Your task to perform on an android device: read, delete, or share a saved page in the chrome app Image 0: 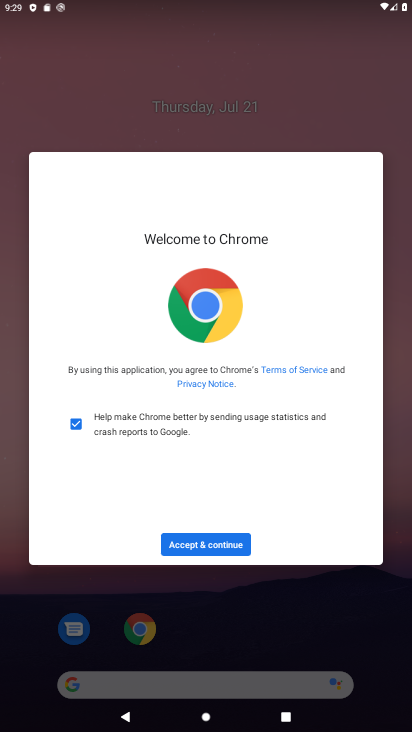
Step 0: click (231, 538)
Your task to perform on an android device: read, delete, or share a saved page in the chrome app Image 1: 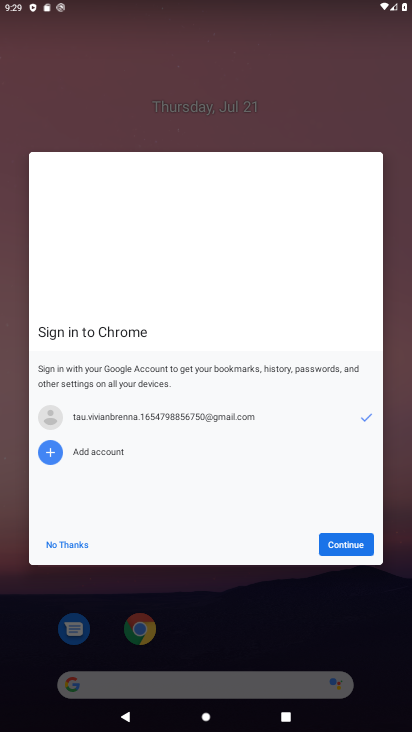
Step 1: click (350, 541)
Your task to perform on an android device: read, delete, or share a saved page in the chrome app Image 2: 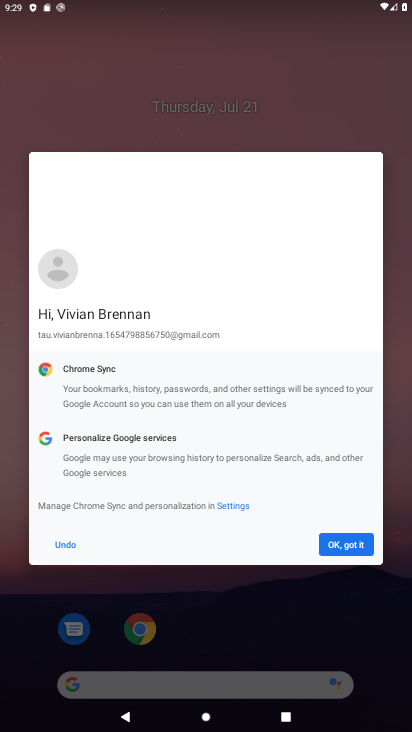
Step 2: click (350, 541)
Your task to perform on an android device: read, delete, or share a saved page in the chrome app Image 3: 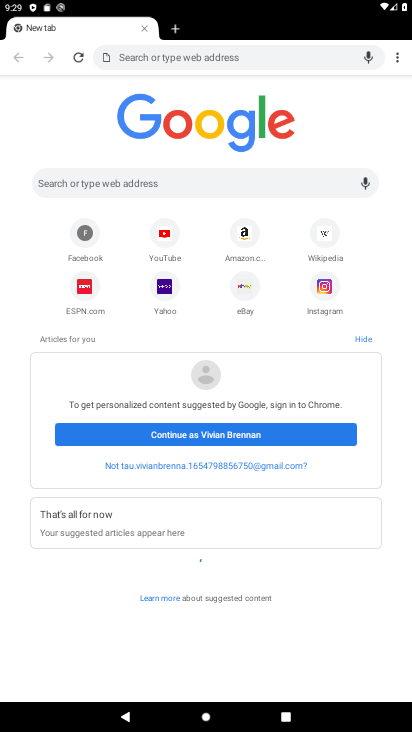
Step 3: click (403, 65)
Your task to perform on an android device: read, delete, or share a saved page in the chrome app Image 4: 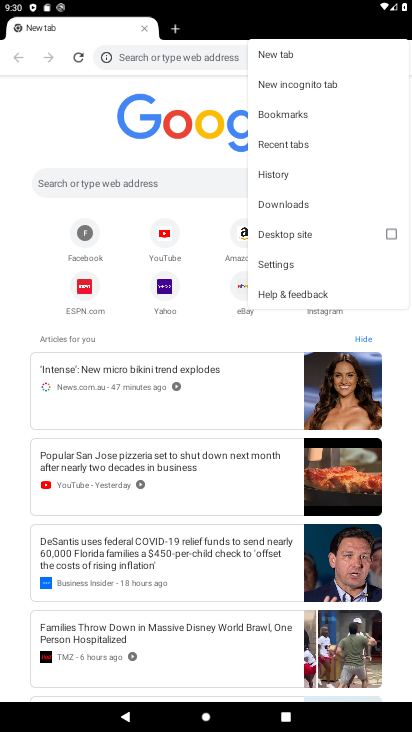
Step 4: click (304, 205)
Your task to perform on an android device: read, delete, or share a saved page in the chrome app Image 5: 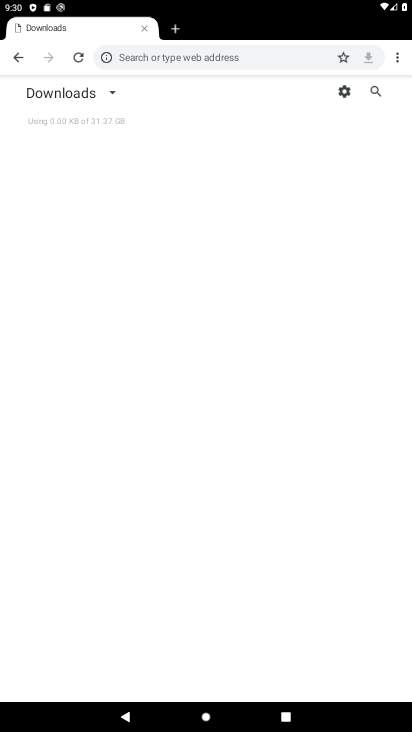
Step 5: task complete